Your task to perform on an android device: visit the assistant section in the google photos Image 0: 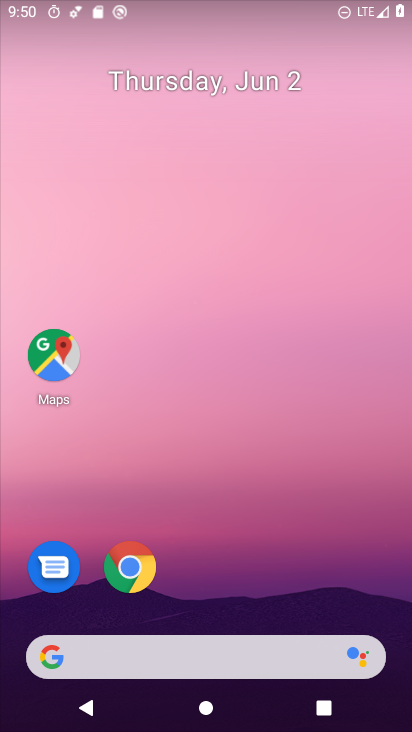
Step 0: drag from (321, 566) to (309, 164)
Your task to perform on an android device: visit the assistant section in the google photos Image 1: 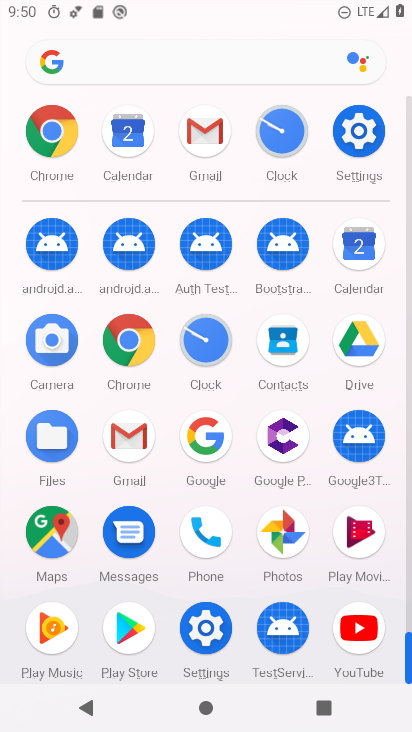
Step 1: click (284, 519)
Your task to perform on an android device: visit the assistant section in the google photos Image 2: 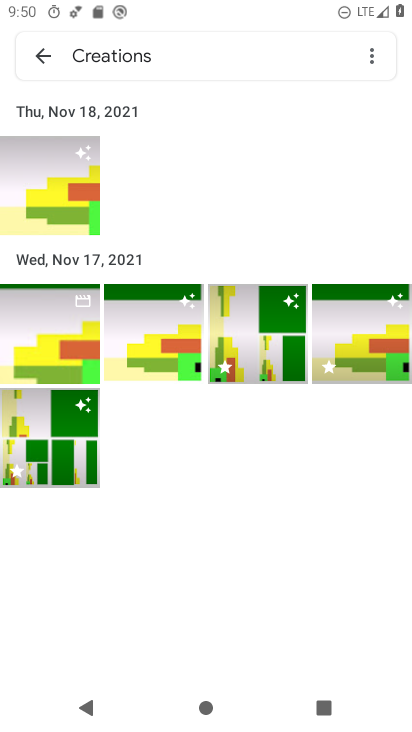
Step 2: click (33, 56)
Your task to perform on an android device: visit the assistant section in the google photos Image 3: 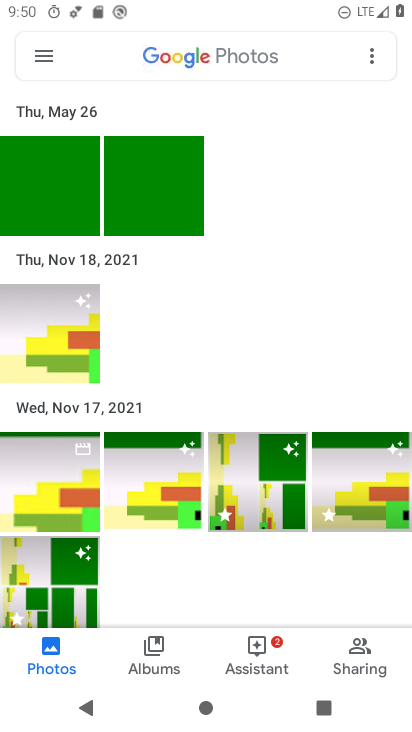
Step 3: click (174, 54)
Your task to perform on an android device: visit the assistant section in the google photos Image 4: 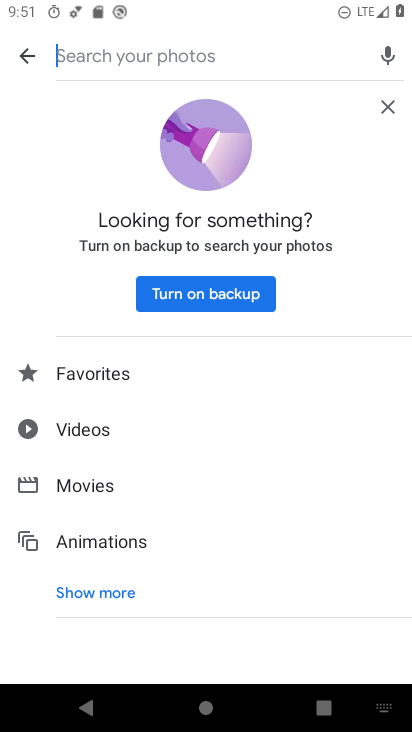
Step 4: type "assistant sections "
Your task to perform on an android device: visit the assistant section in the google photos Image 5: 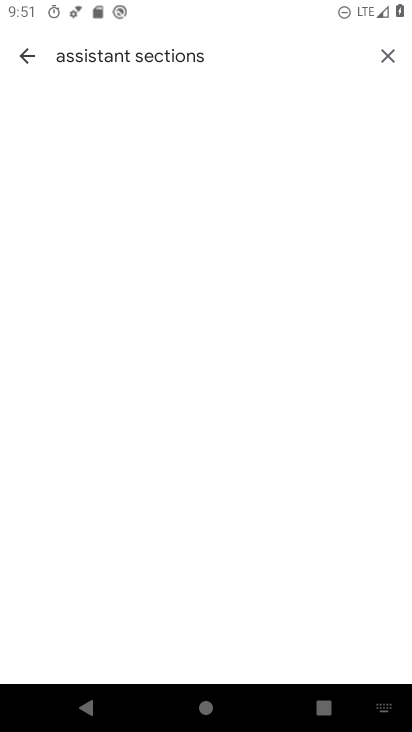
Step 5: task complete